Your task to perform on an android device: Go to CNN.com Image 0: 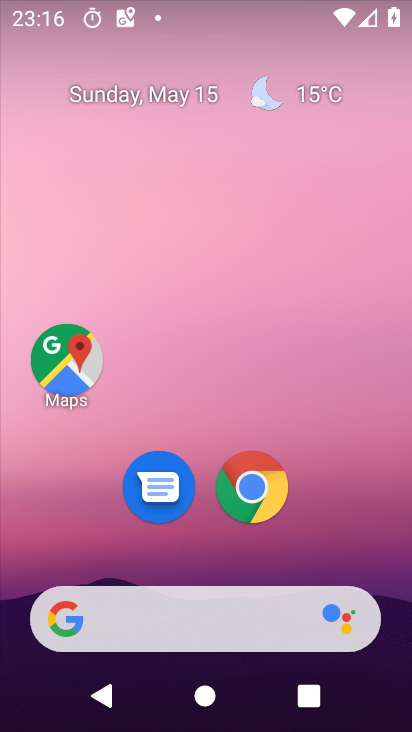
Step 0: click (253, 485)
Your task to perform on an android device: Go to CNN.com Image 1: 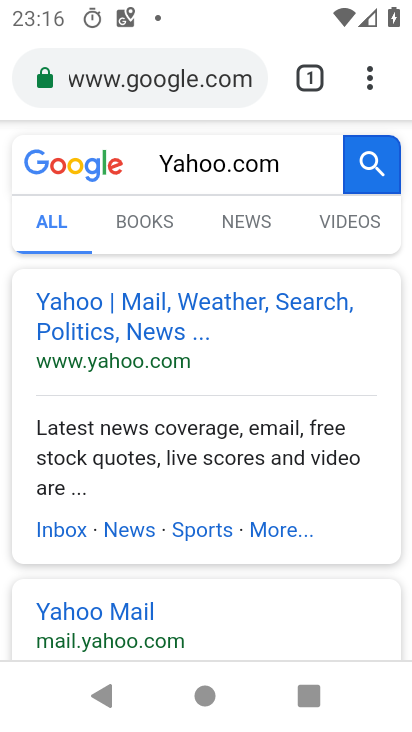
Step 1: click (254, 77)
Your task to perform on an android device: Go to CNN.com Image 2: 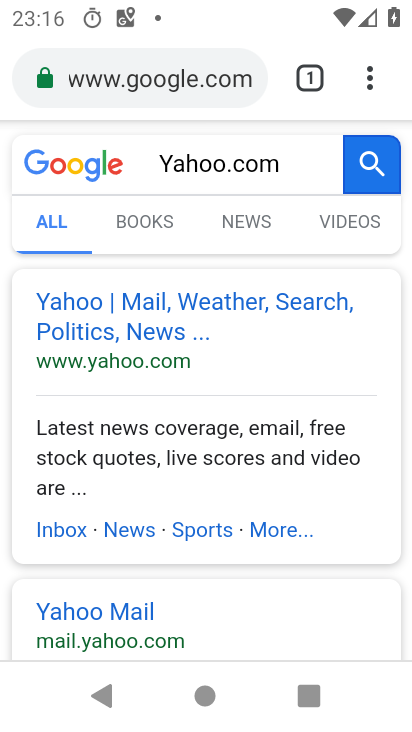
Step 2: click (252, 77)
Your task to perform on an android device: Go to CNN.com Image 3: 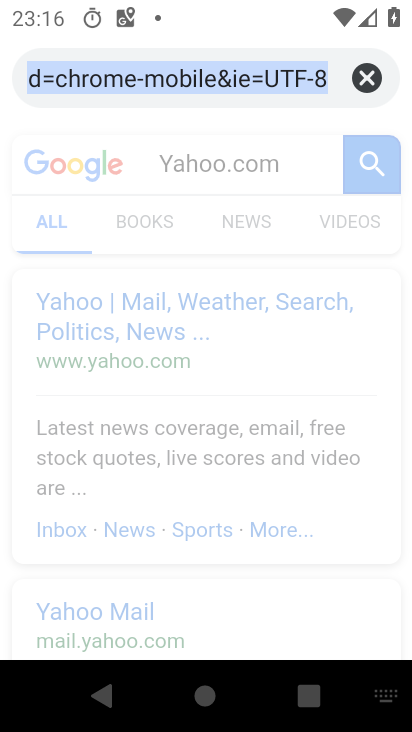
Step 3: click (366, 74)
Your task to perform on an android device: Go to CNN.com Image 4: 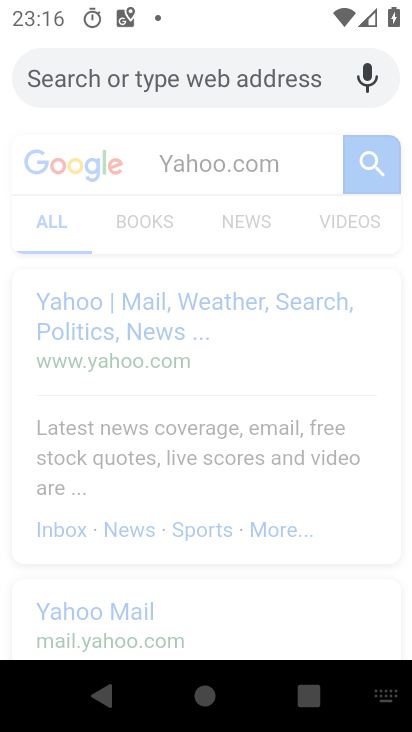
Step 4: click (160, 81)
Your task to perform on an android device: Go to CNN.com Image 5: 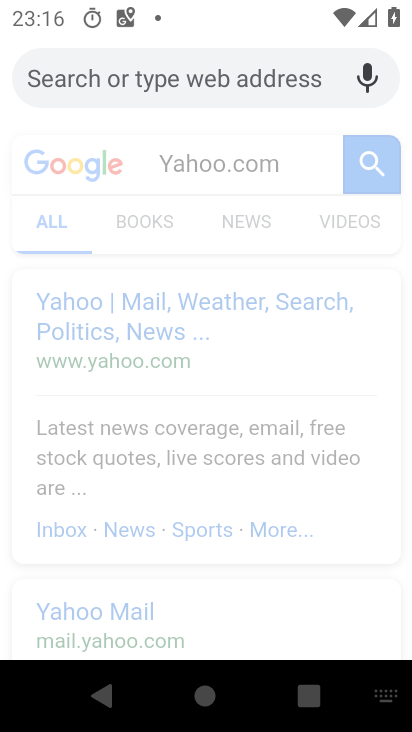
Step 5: type "CNN.com"
Your task to perform on an android device: Go to CNN.com Image 6: 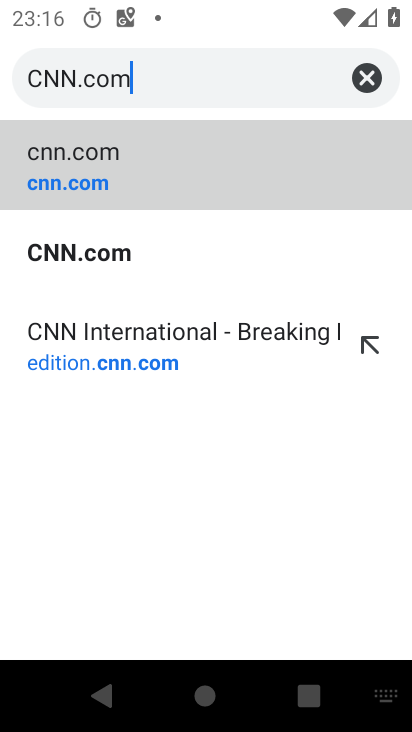
Step 6: click (51, 250)
Your task to perform on an android device: Go to CNN.com Image 7: 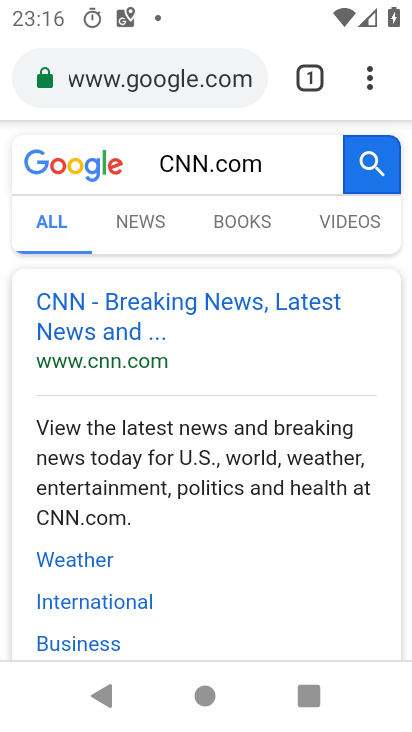
Step 7: task complete